Your task to perform on an android device: manage bookmarks in the chrome app Image 0: 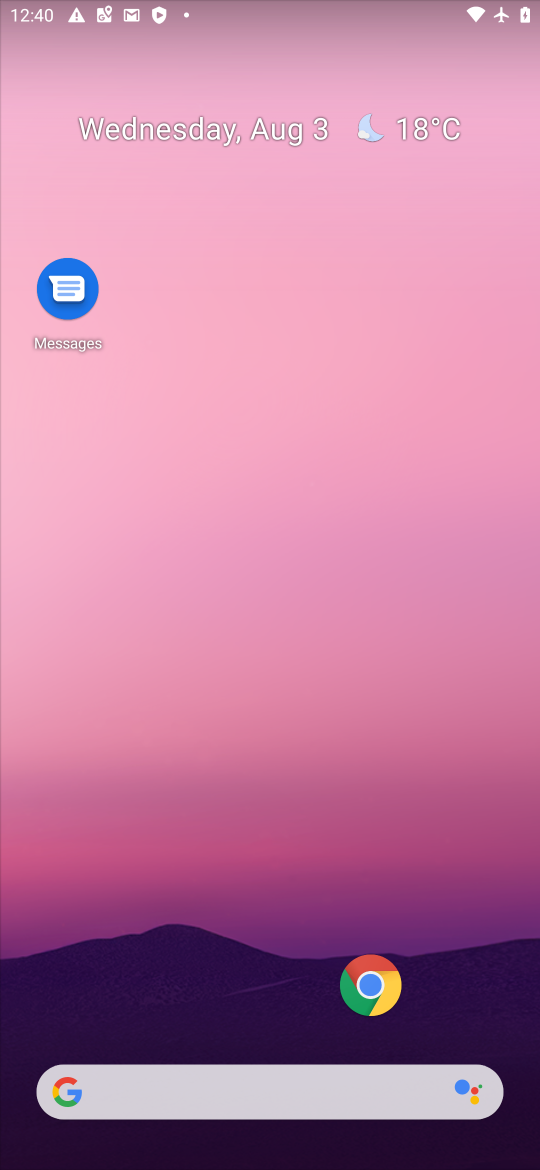
Step 0: click (368, 1000)
Your task to perform on an android device: manage bookmarks in the chrome app Image 1: 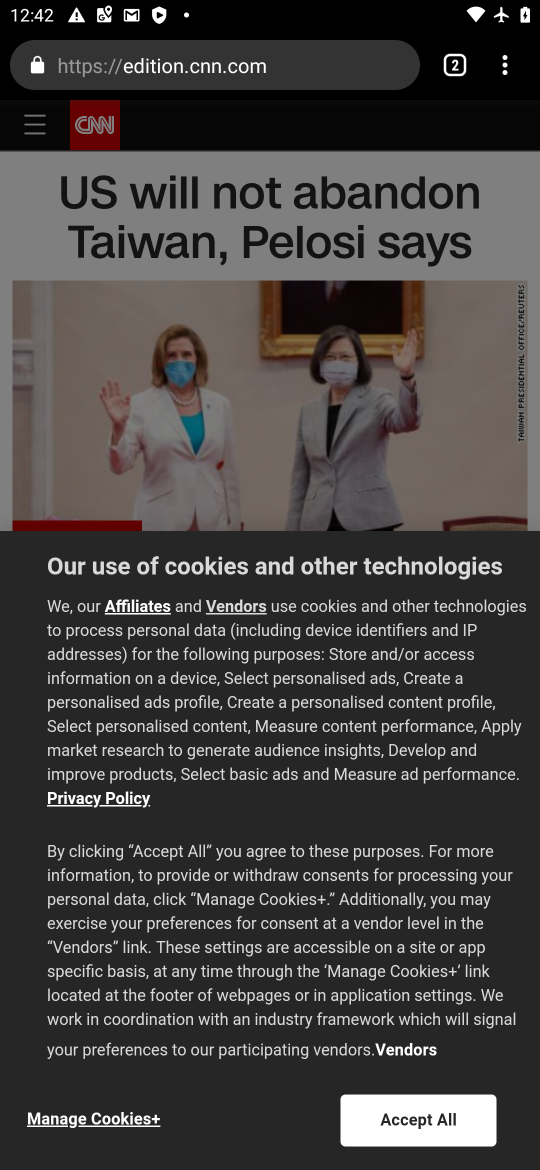
Step 1: task complete